Your task to perform on an android device: Open the phone app and click the voicemail tab. Image 0: 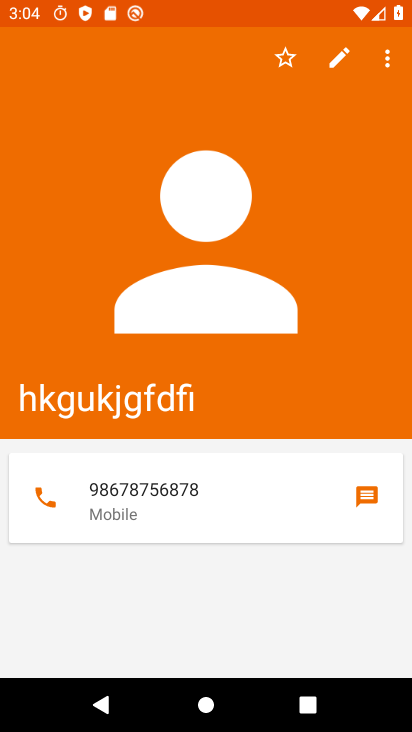
Step 0: press home button
Your task to perform on an android device: Open the phone app and click the voicemail tab. Image 1: 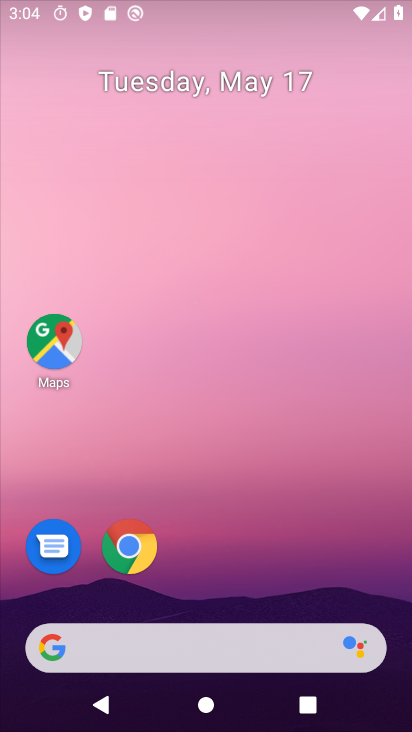
Step 1: drag from (206, 626) to (247, 62)
Your task to perform on an android device: Open the phone app and click the voicemail tab. Image 2: 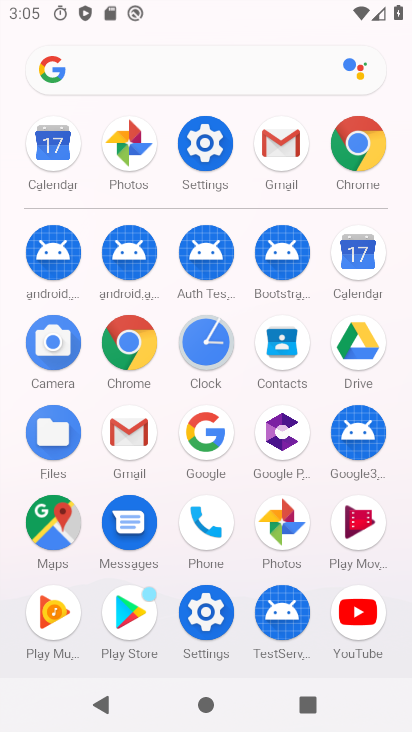
Step 2: click (218, 527)
Your task to perform on an android device: Open the phone app and click the voicemail tab. Image 3: 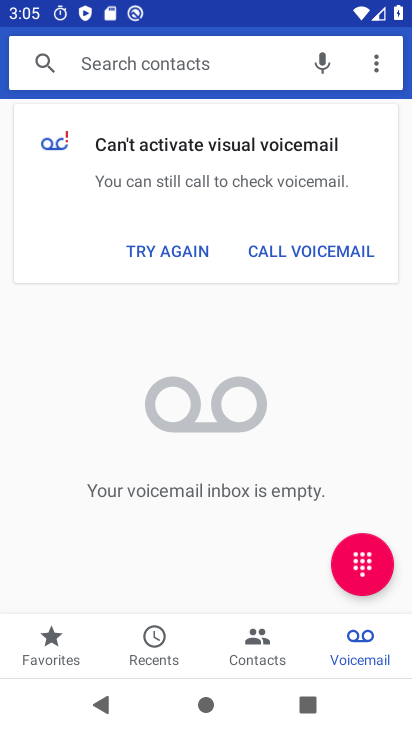
Step 3: task complete